Your task to perform on an android device: toggle airplane mode Image 0: 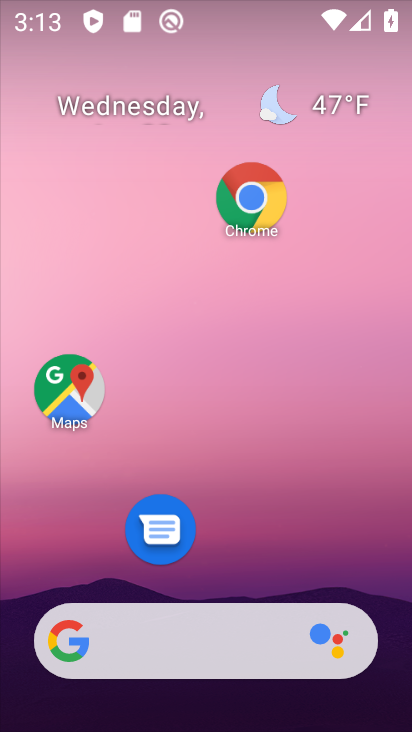
Step 0: drag from (253, 549) to (244, 52)
Your task to perform on an android device: toggle airplane mode Image 1: 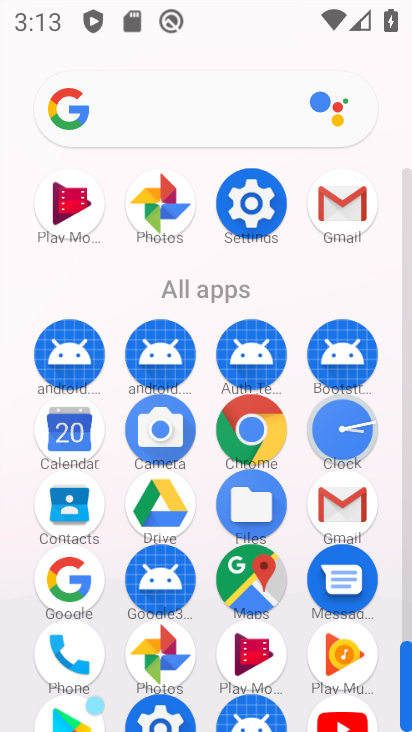
Step 1: click (259, 214)
Your task to perform on an android device: toggle airplane mode Image 2: 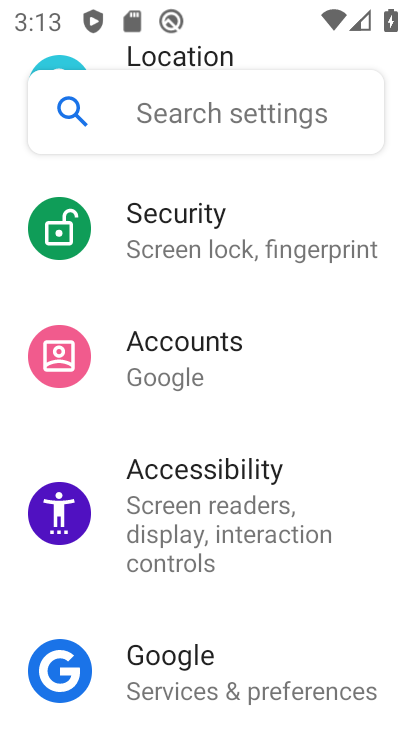
Step 2: drag from (272, 297) to (248, 627)
Your task to perform on an android device: toggle airplane mode Image 3: 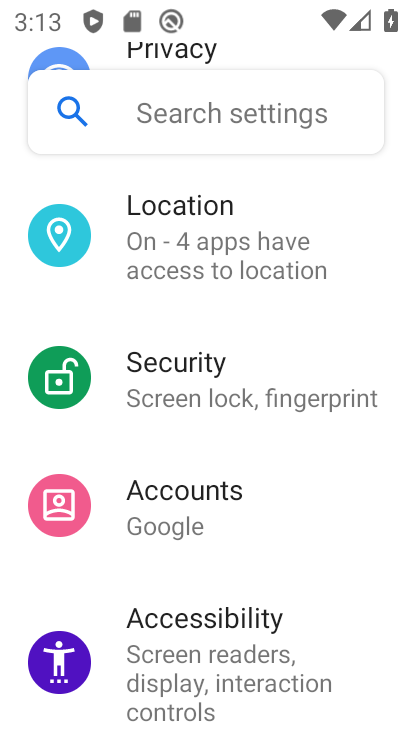
Step 3: drag from (262, 240) to (239, 720)
Your task to perform on an android device: toggle airplane mode Image 4: 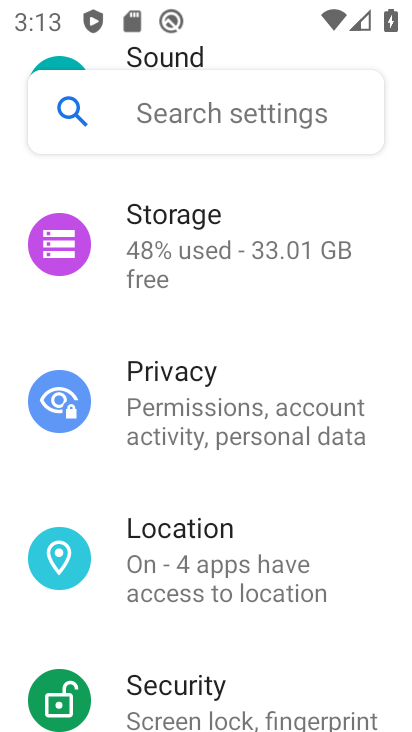
Step 4: drag from (251, 319) to (249, 717)
Your task to perform on an android device: toggle airplane mode Image 5: 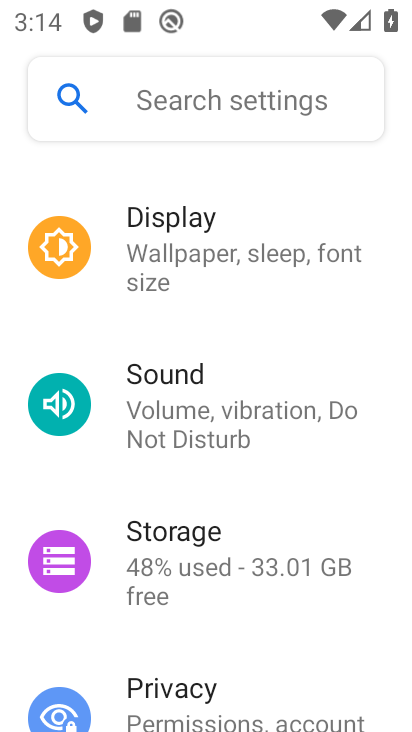
Step 5: drag from (267, 232) to (202, 609)
Your task to perform on an android device: toggle airplane mode Image 6: 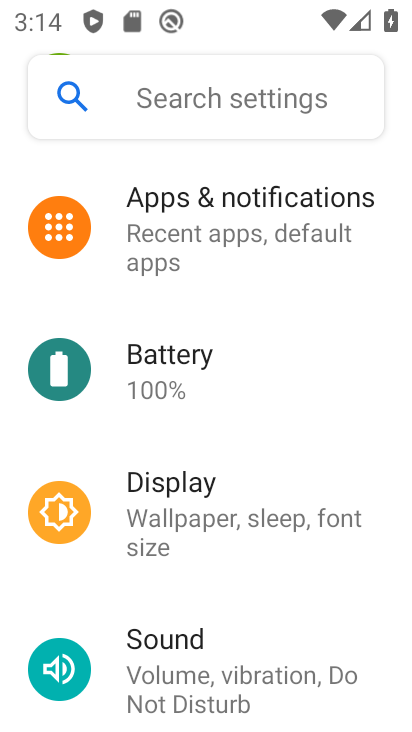
Step 6: drag from (244, 265) to (219, 729)
Your task to perform on an android device: toggle airplane mode Image 7: 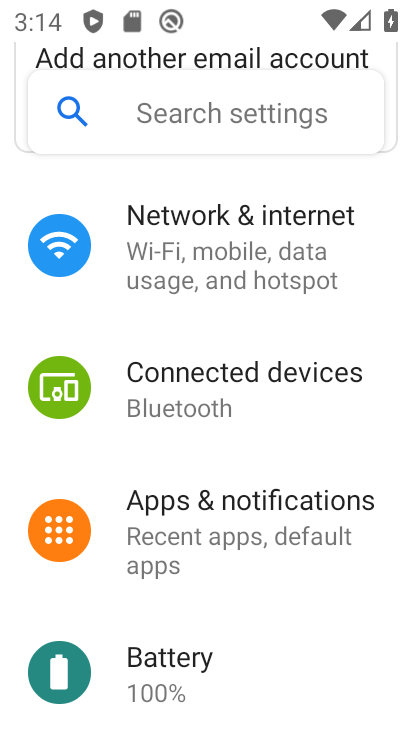
Step 7: click (237, 259)
Your task to perform on an android device: toggle airplane mode Image 8: 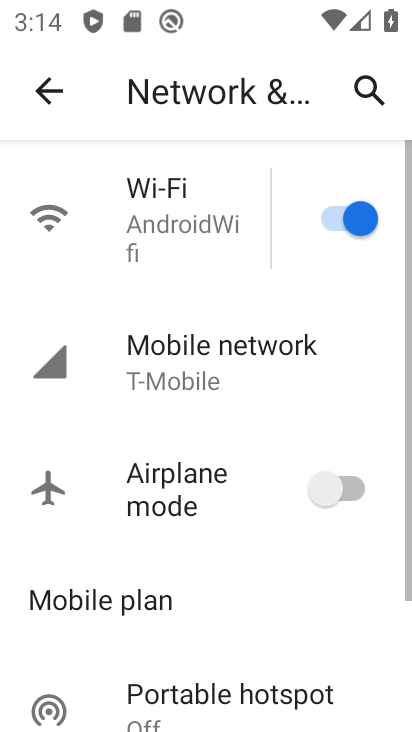
Step 8: click (333, 491)
Your task to perform on an android device: toggle airplane mode Image 9: 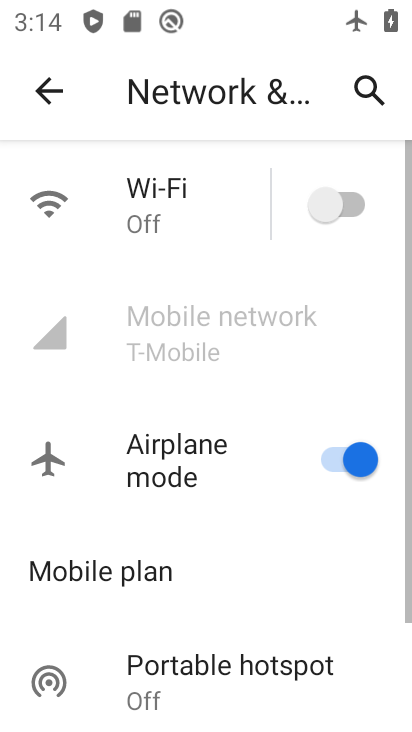
Step 9: task complete